Your task to perform on an android device: What's the news in Indonesia? Image 0: 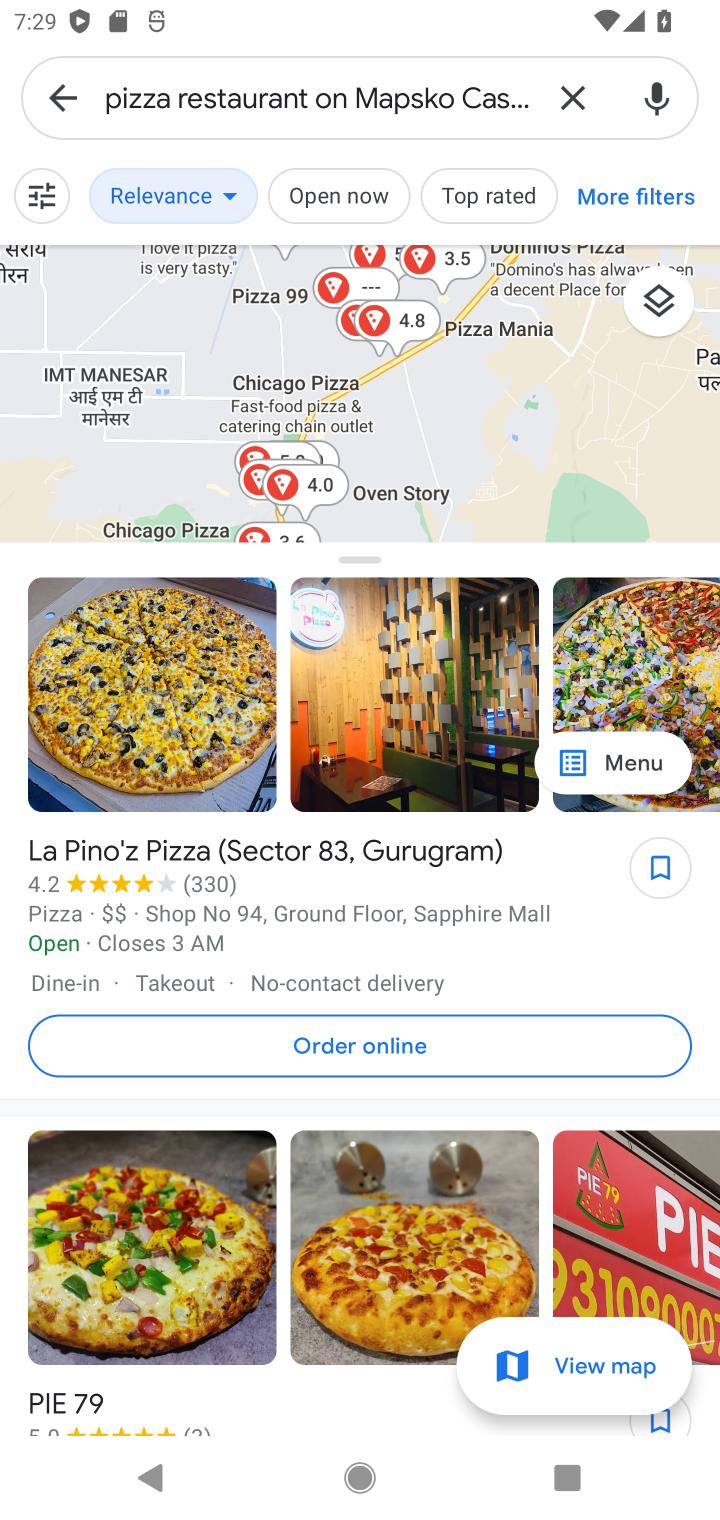
Step 0: press home button
Your task to perform on an android device: What's the news in Indonesia? Image 1: 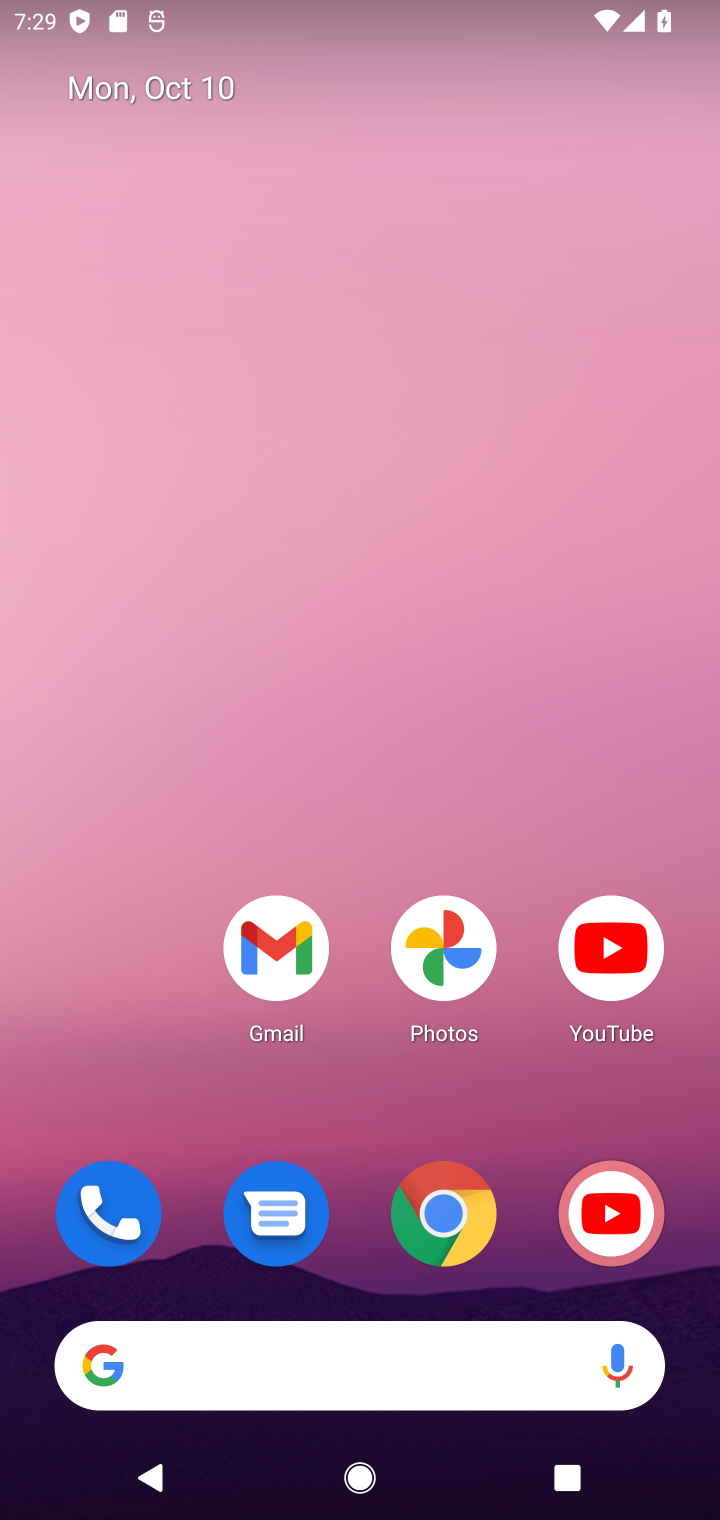
Step 1: click (326, 1366)
Your task to perform on an android device: What's the news in Indonesia? Image 2: 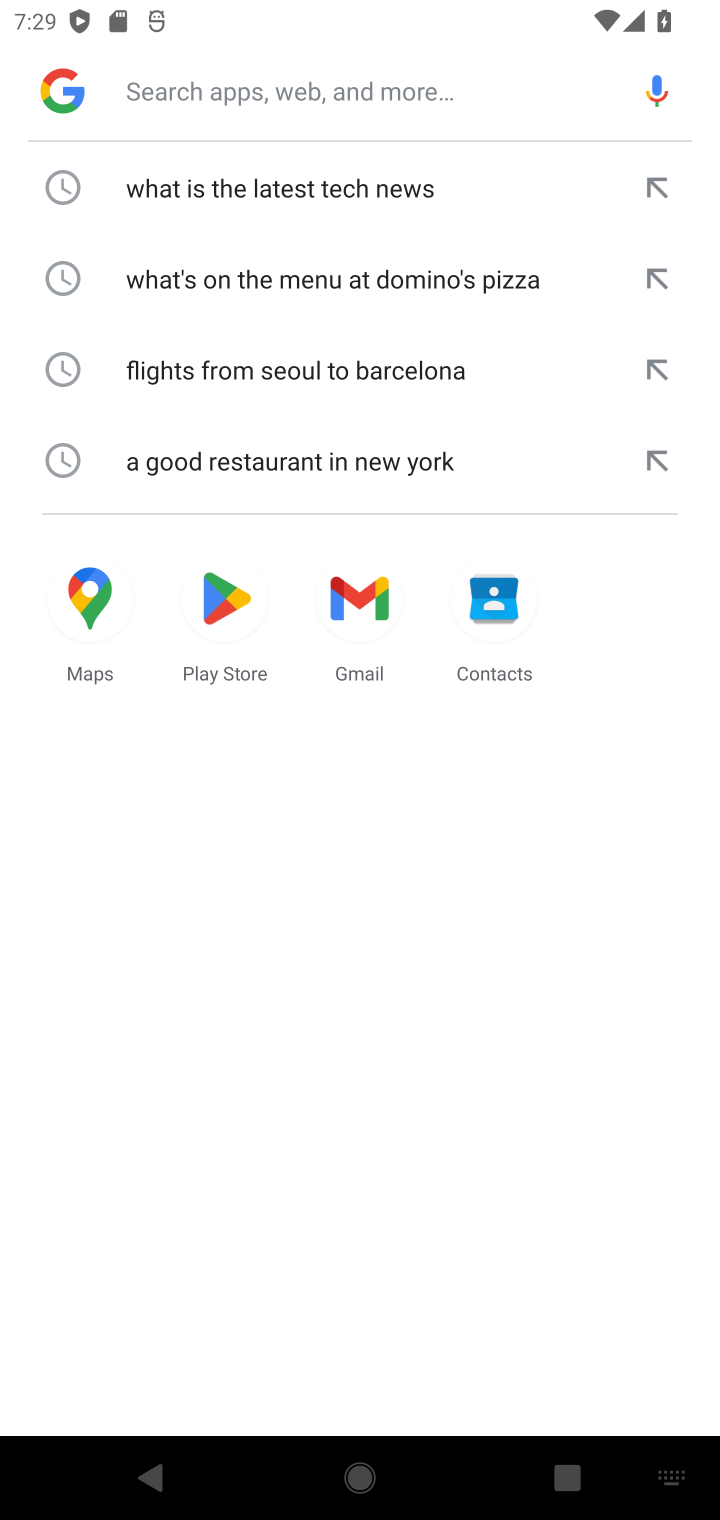
Step 2: click (173, 79)
Your task to perform on an android device: What's the news in Indonesia? Image 3: 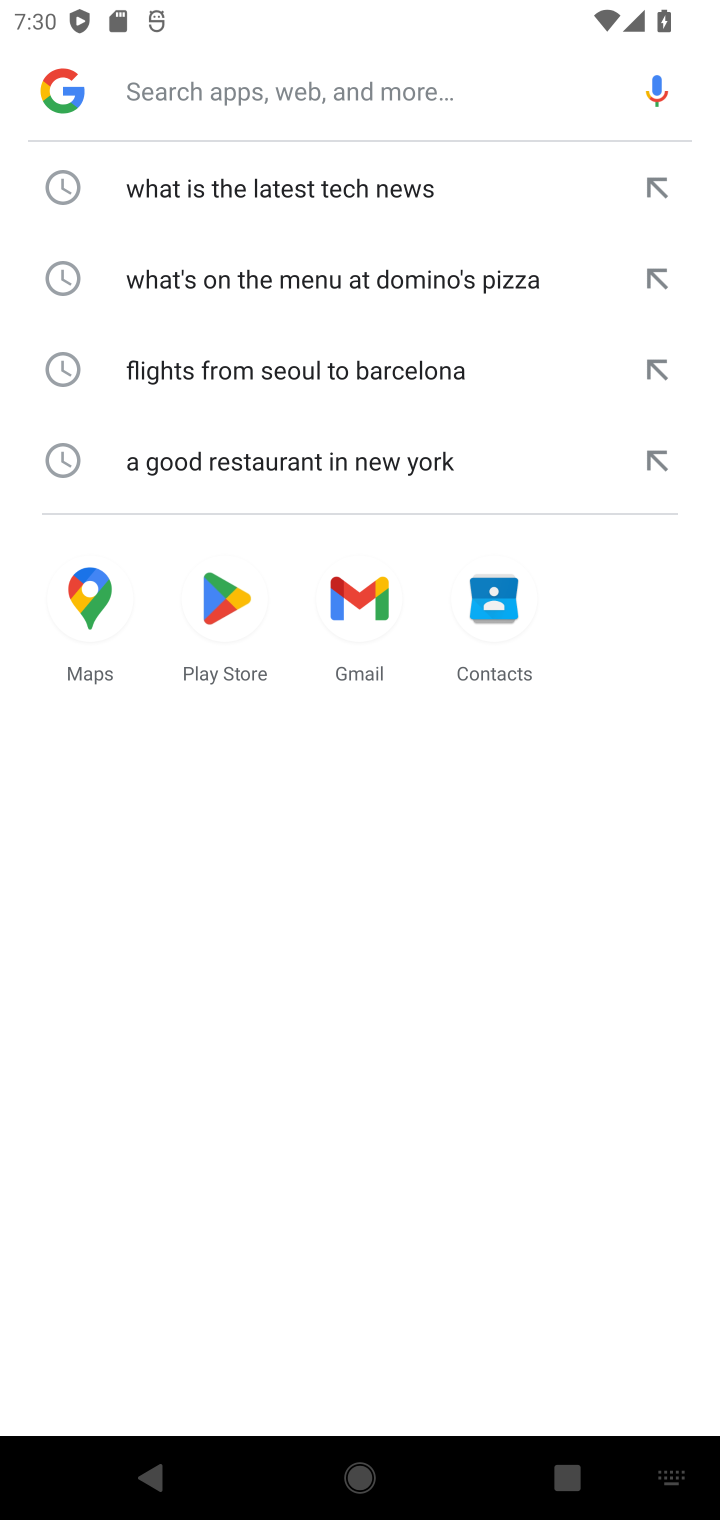
Step 3: type "What's the news in Indonesia?"
Your task to perform on an android device: What's the news in Indonesia? Image 4: 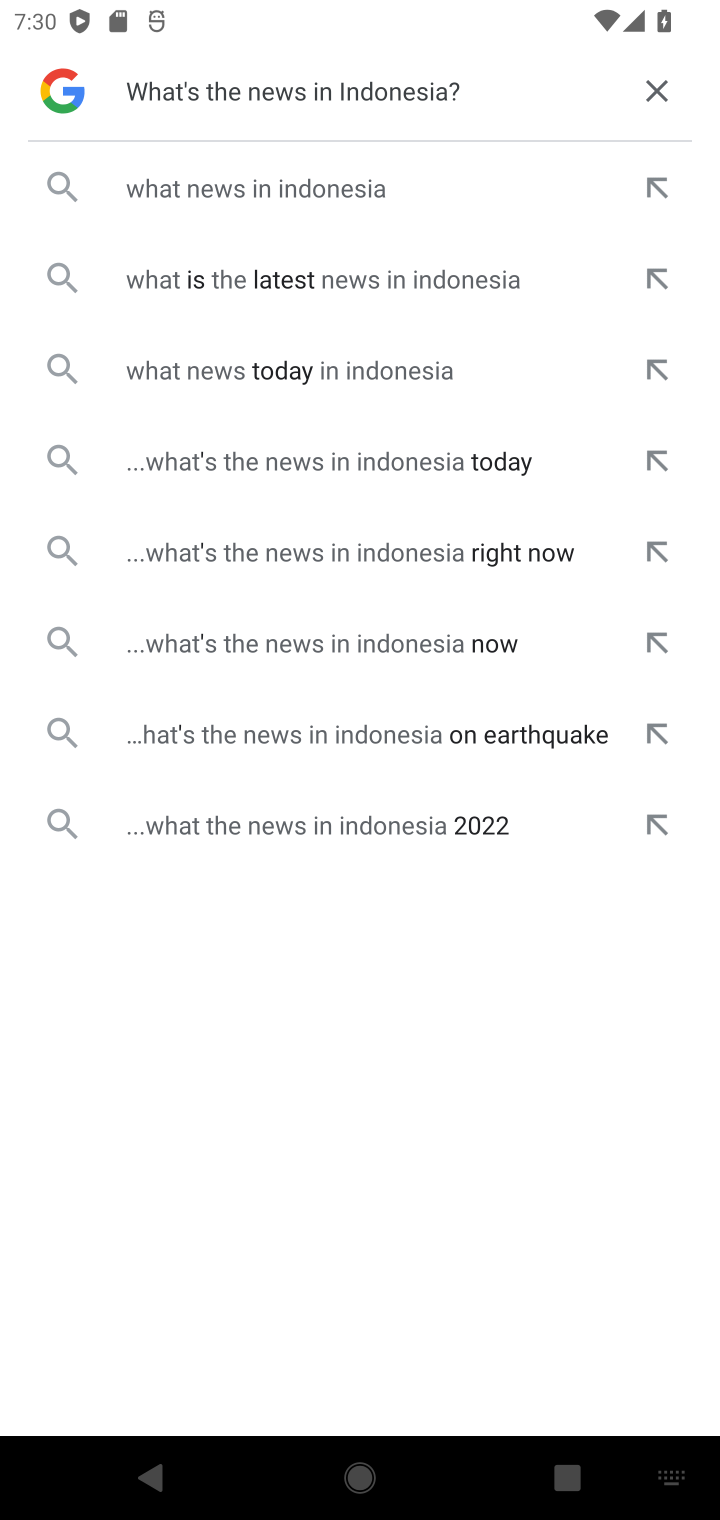
Step 4: click (298, 178)
Your task to perform on an android device: What's the news in Indonesia? Image 5: 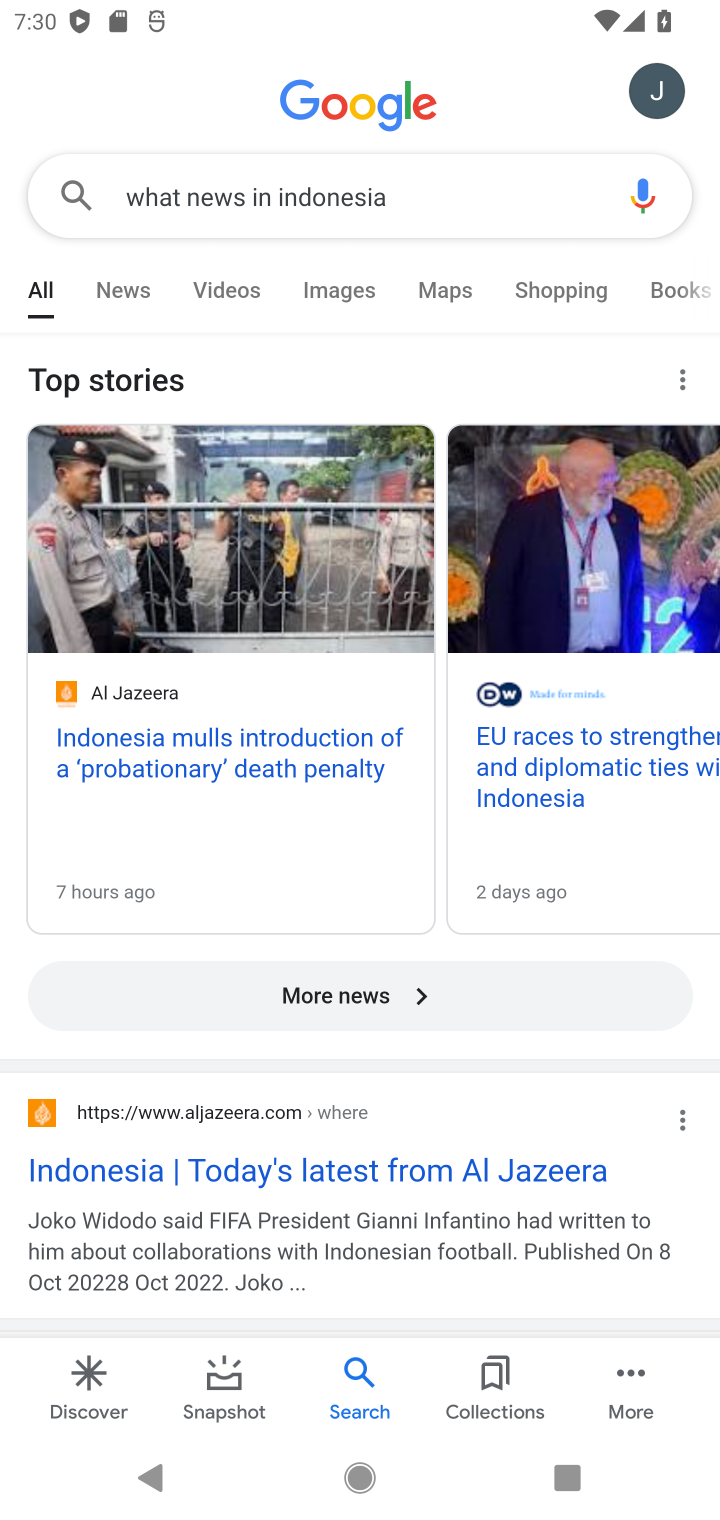
Step 5: task complete